Your task to perform on an android device: Empty the shopping cart on amazon. Image 0: 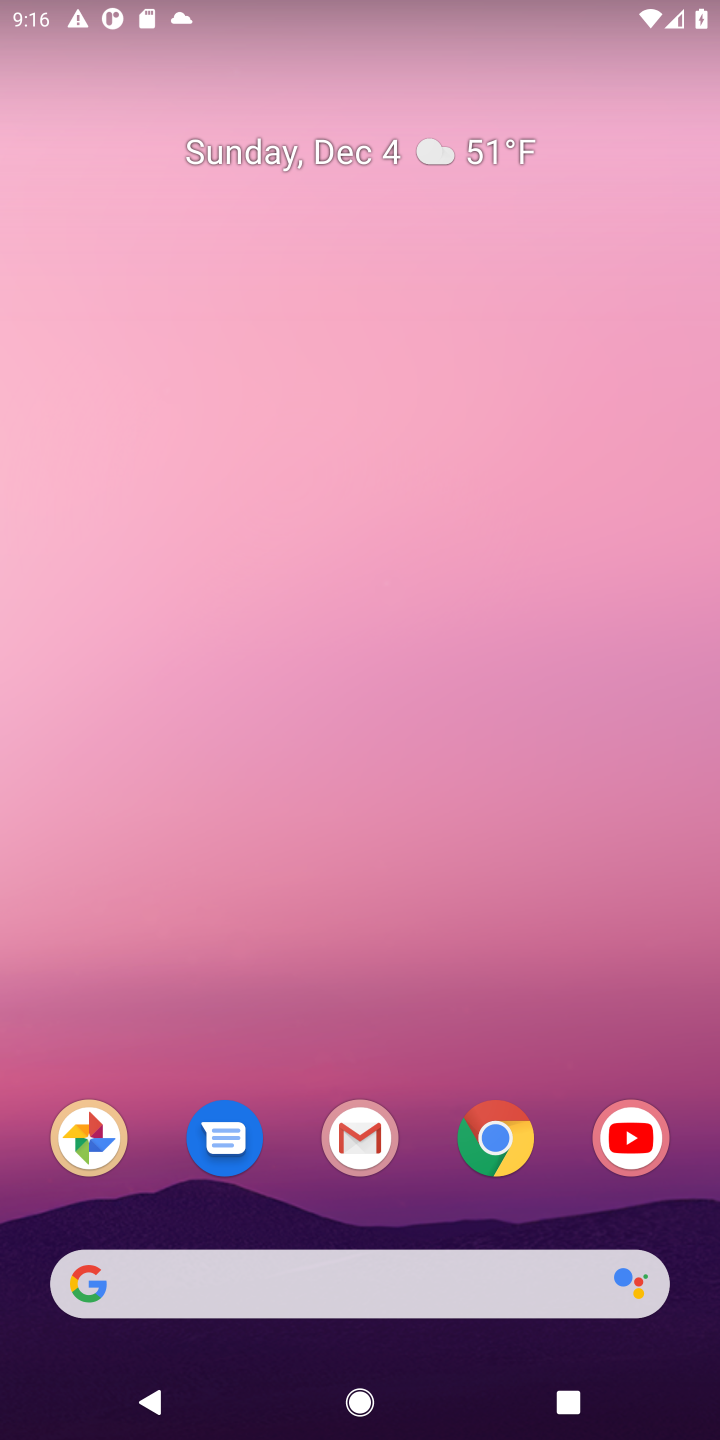
Step 0: click (504, 1132)
Your task to perform on an android device: Empty the shopping cart on amazon. Image 1: 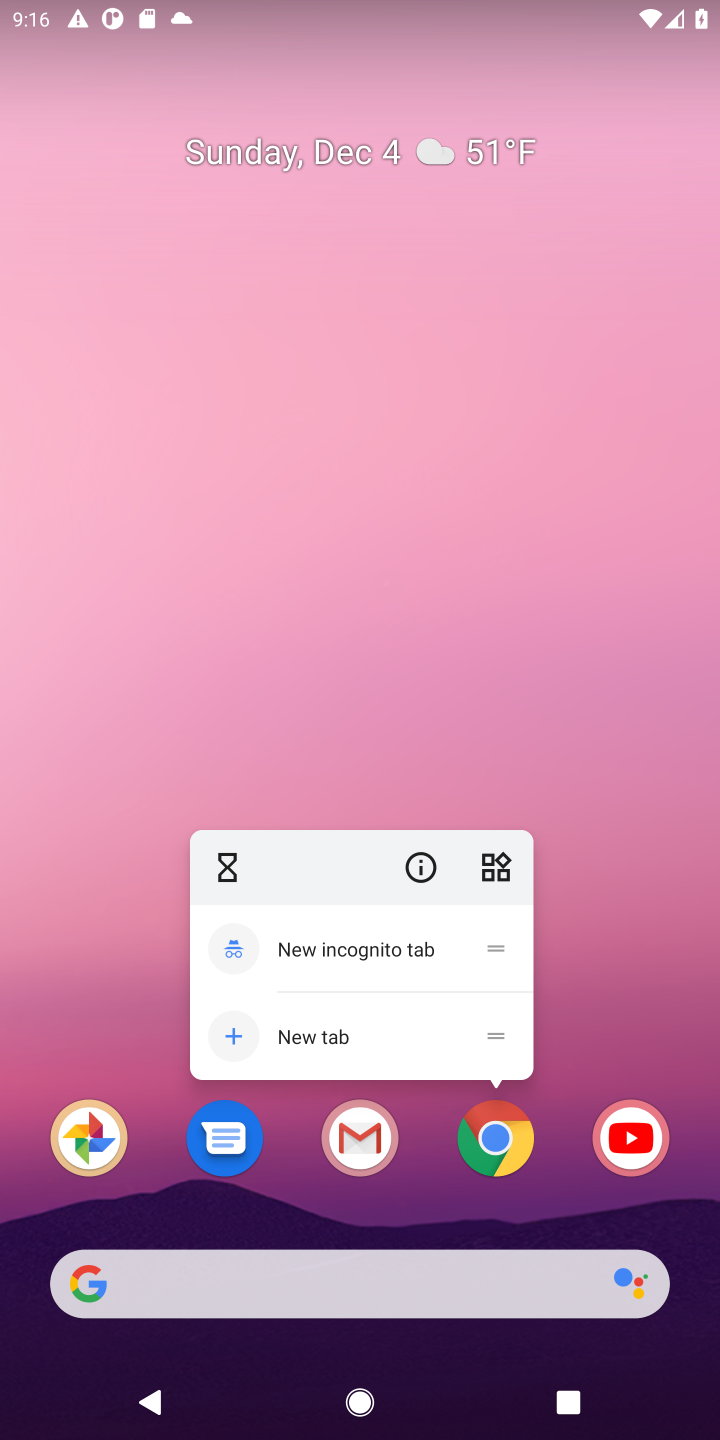
Step 1: click (504, 1132)
Your task to perform on an android device: Empty the shopping cart on amazon. Image 2: 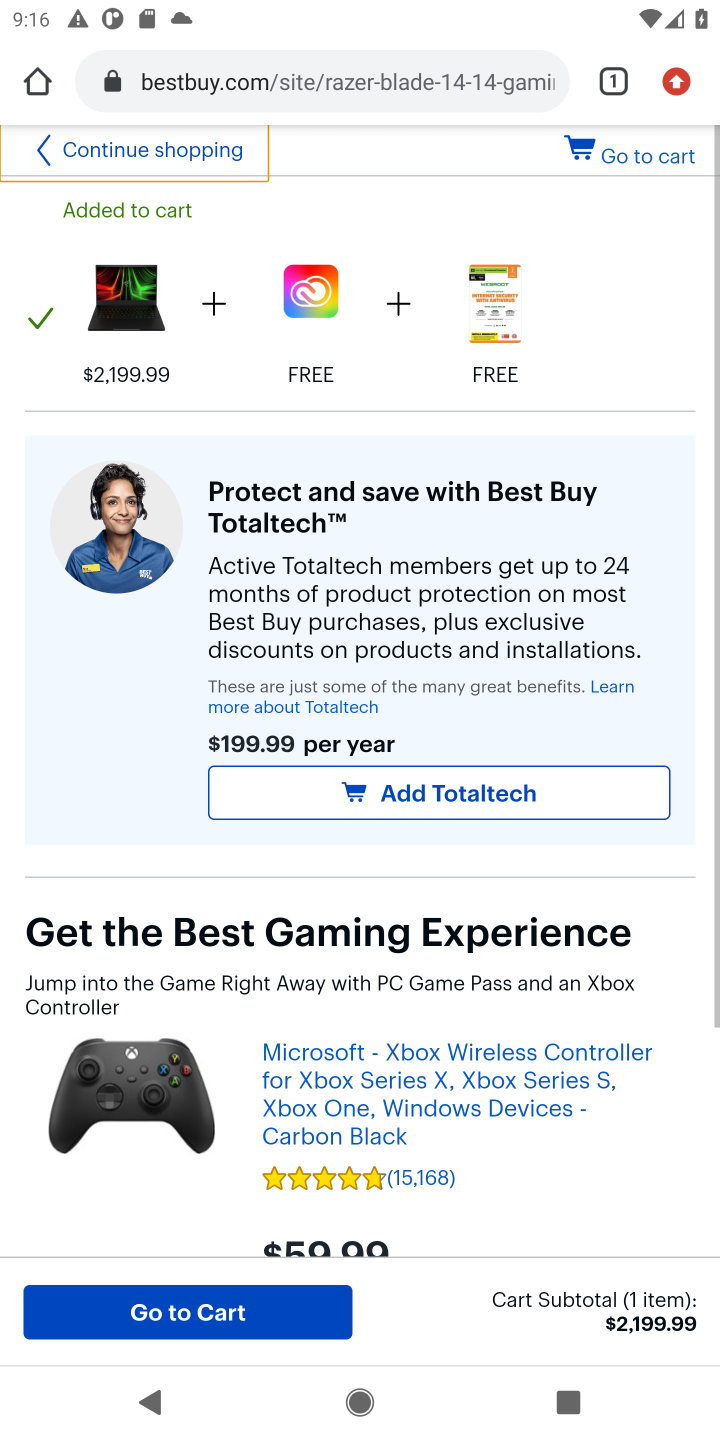
Step 2: click (440, 68)
Your task to perform on an android device: Empty the shopping cart on amazon. Image 3: 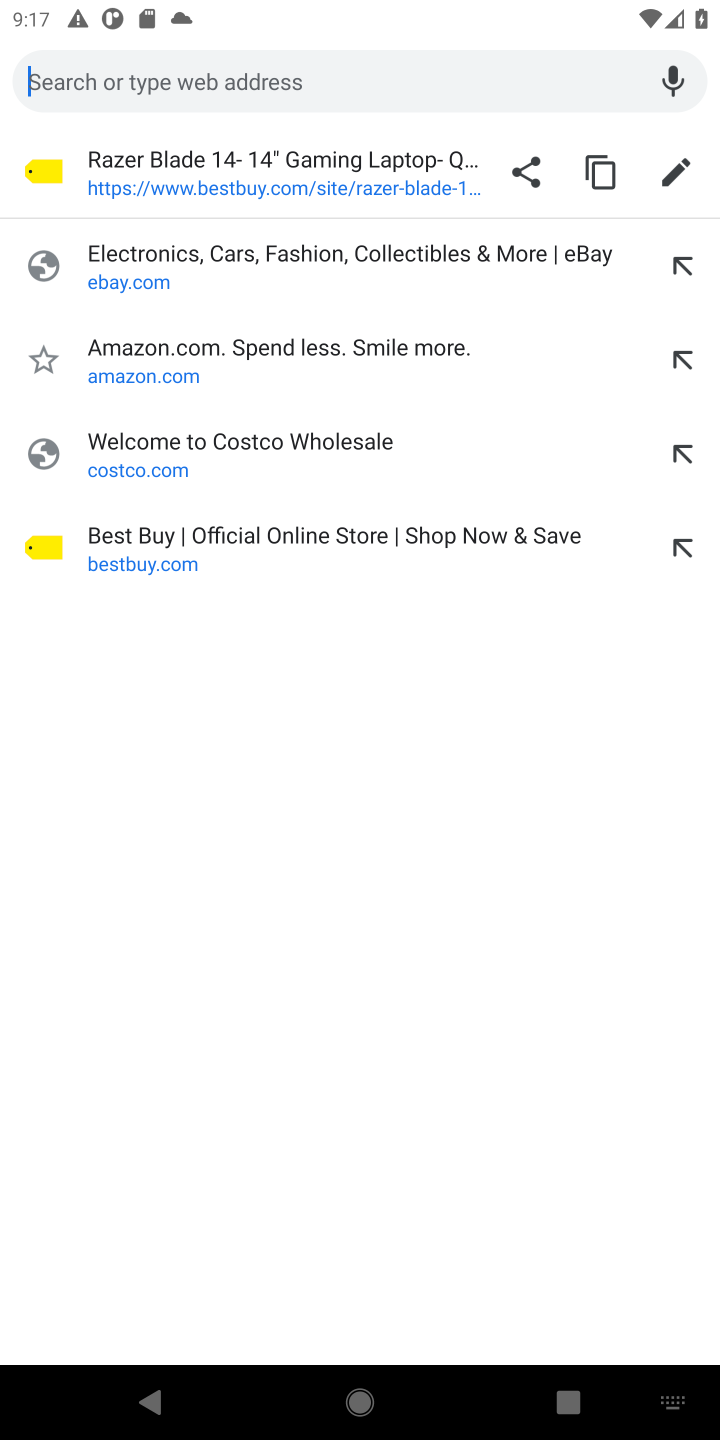
Step 3: click (282, 346)
Your task to perform on an android device: Empty the shopping cart on amazon. Image 4: 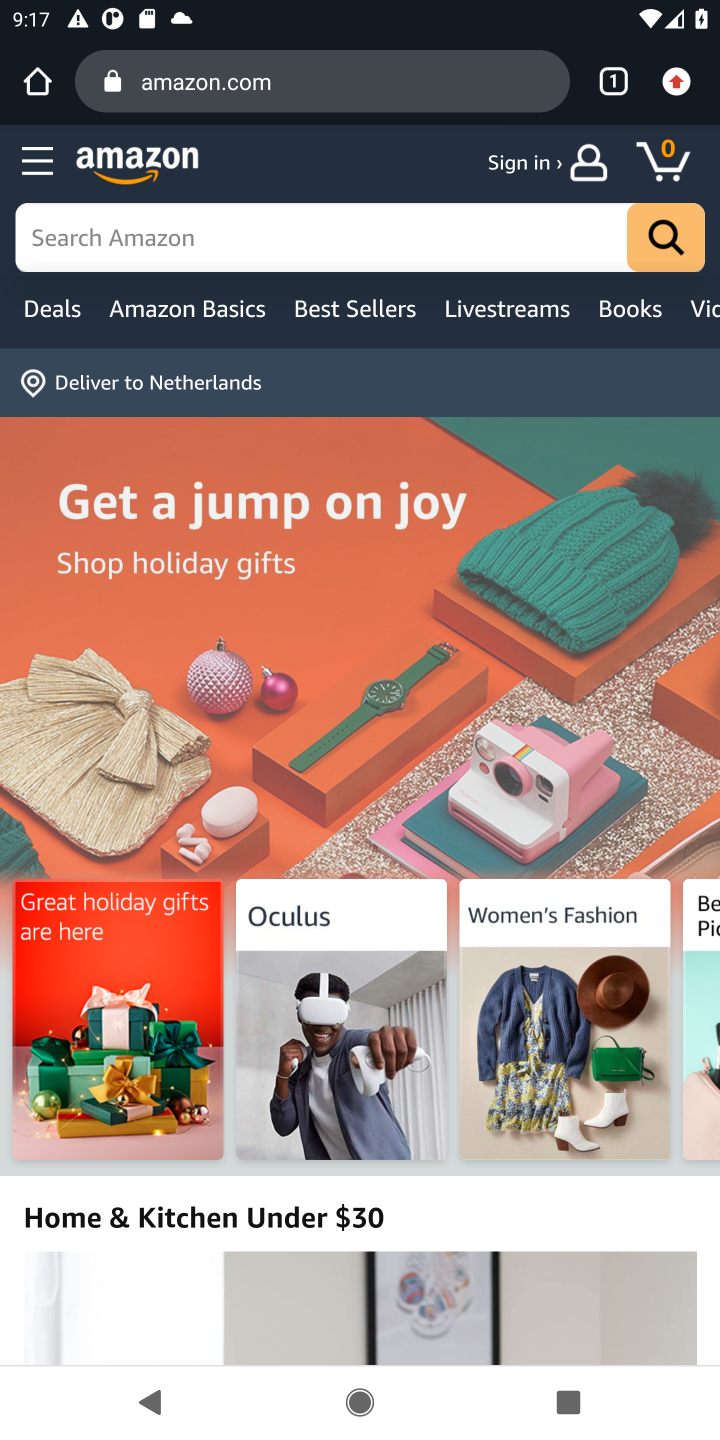
Step 4: task complete